Your task to perform on an android device: Go to Reddit.com Image 0: 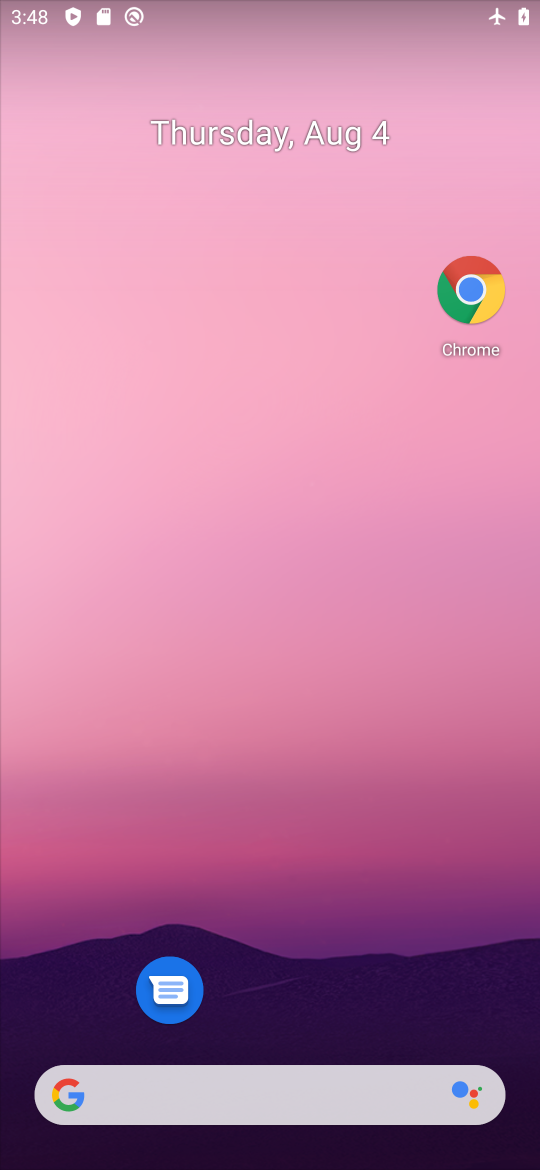
Step 0: task complete